Your task to perform on an android device: find snoozed emails in the gmail app Image 0: 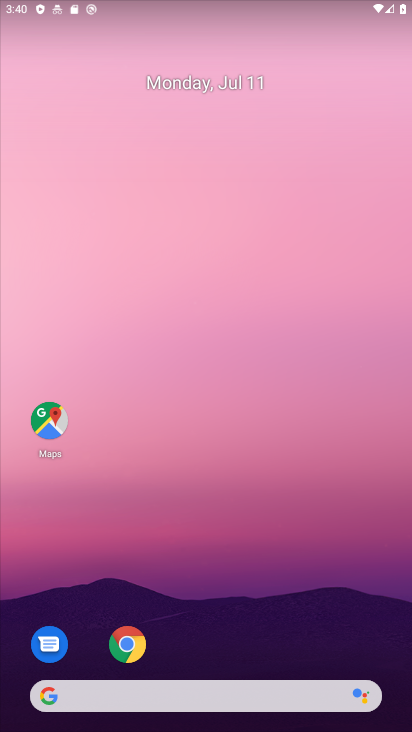
Step 0: drag from (234, 613) to (322, 126)
Your task to perform on an android device: find snoozed emails in the gmail app Image 1: 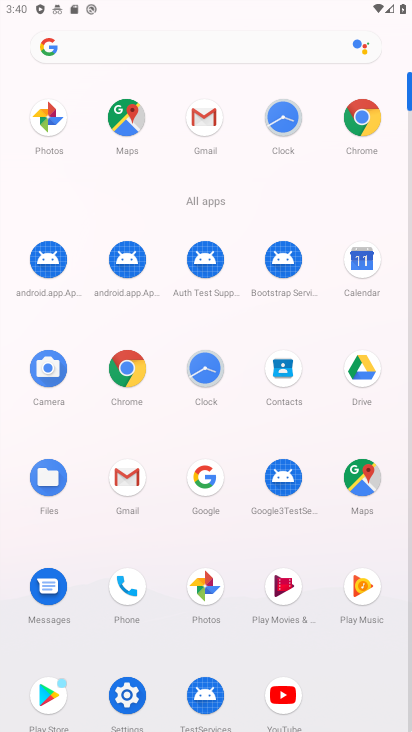
Step 1: click (207, 121)
Your task to perform on an android device: find snoozed emails in the gmail app Image 2: 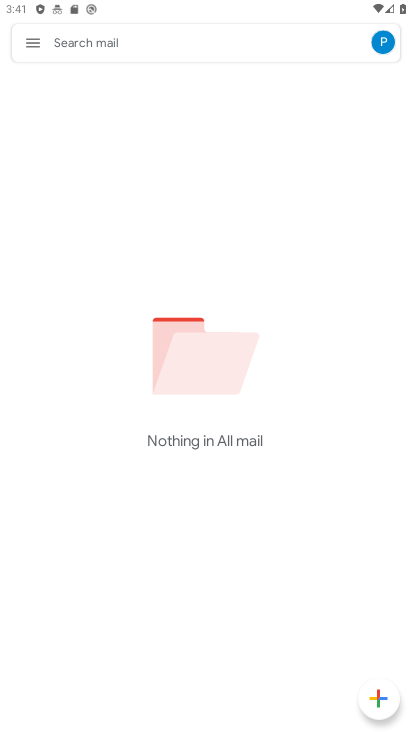
Step 2: task complete